Your task to perform on an android device: Open Google Maps and go to "Timeline" Image 0: 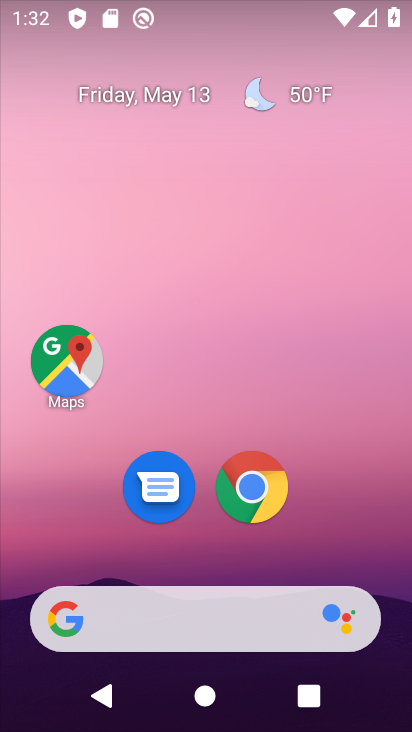
Step 0: click (81, 388)
Your task to perform on an android device: Open Google Maps and go to "Timeline" Image 1: 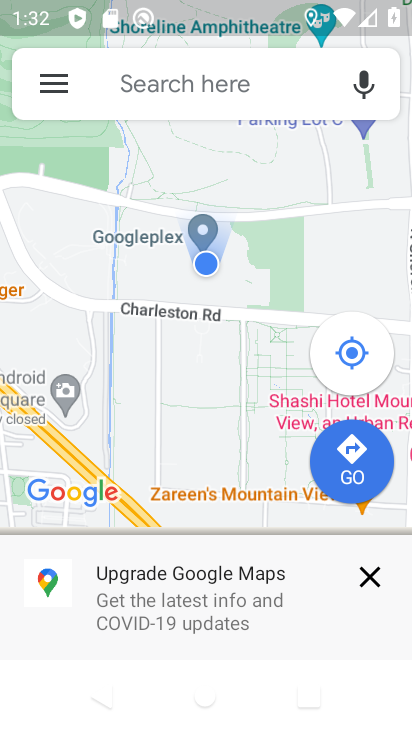
Step 1: click (51, 80)
Your task to perform on an android device: Open Google Maps and go to "Timeline" Image 2: 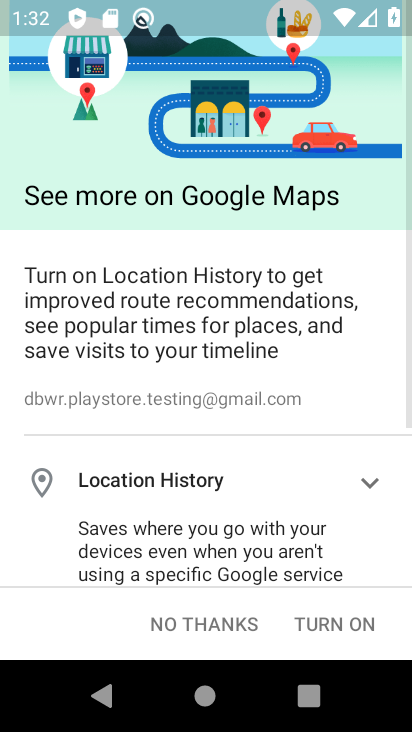
Step 2: click (226, 629)
Your task to perform on an android device: Open Google Maps and go to "Timeline" Image 3: 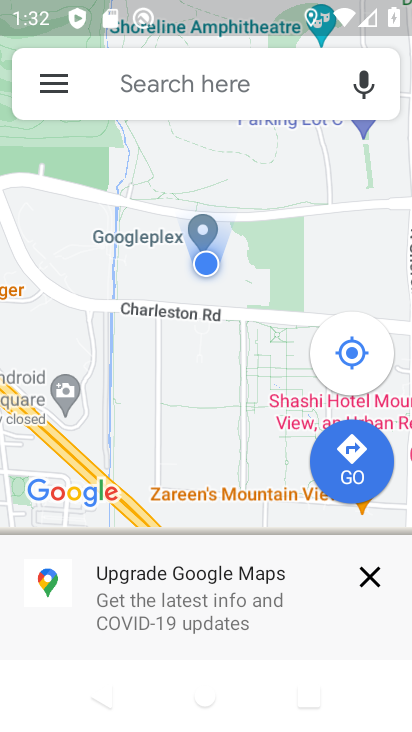
Step 3: click (54, 85)
Your task to perform on an android device: Open Google Maps and go to "Timeline" Image 4: 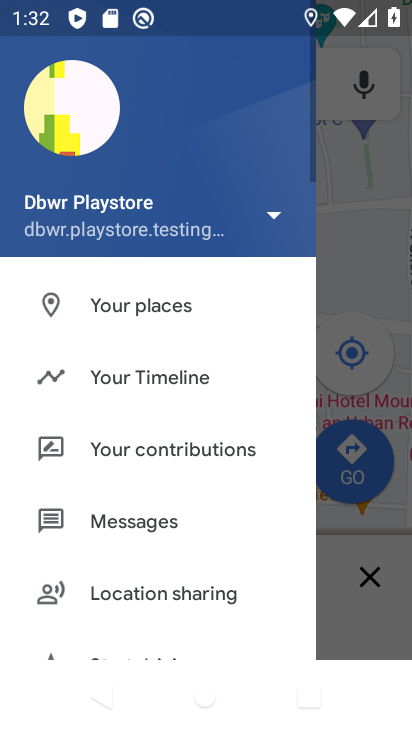
Step 4: click (142, 367)
Your task to perform on an android device: Open Google Maps and go to "Timeline" Image 5: 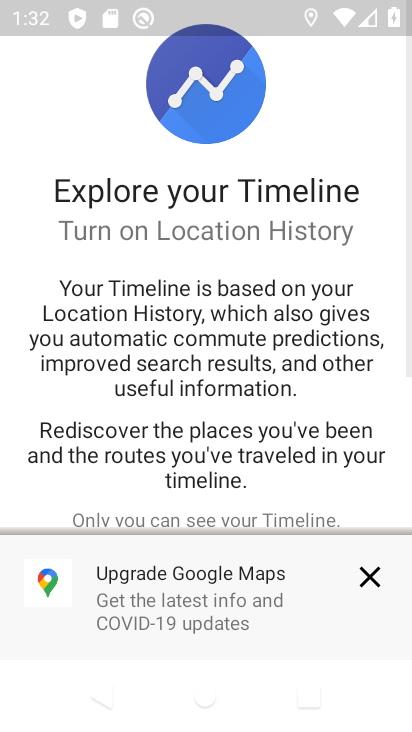
Step 5: click (381, 588)
Your task to perform on an android device: Open Google Maps and go to "Timeline" Image 6: 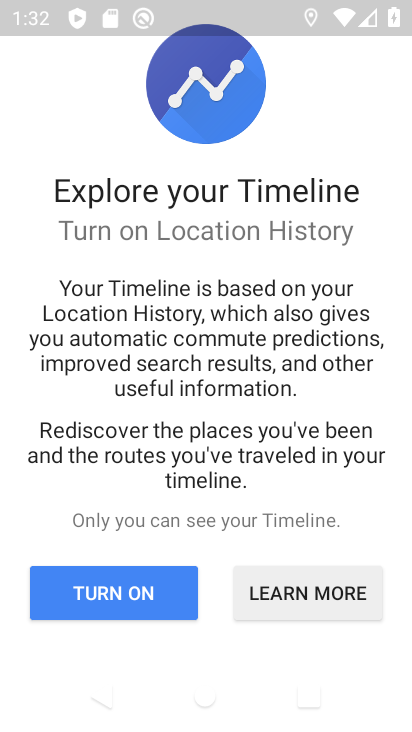
Step 6: click (128, 584)
Your task to perform on an android device: Open Google Maps and go to "Timeline" Image 7: 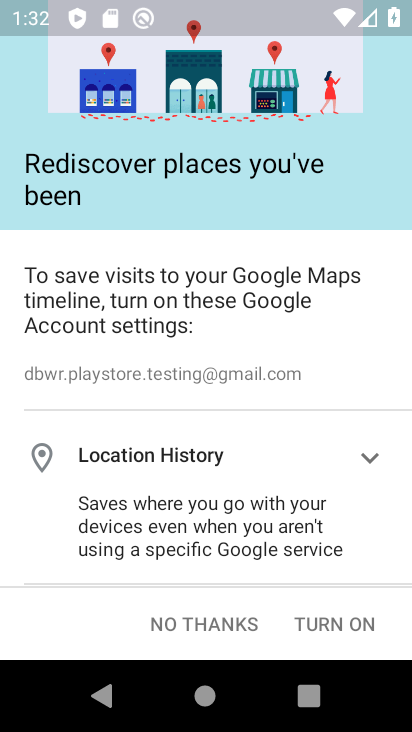
Step 7: click (354, 635)
Your task to perform on an android device: Open Google Maps and go to "Timeline" Image 8: 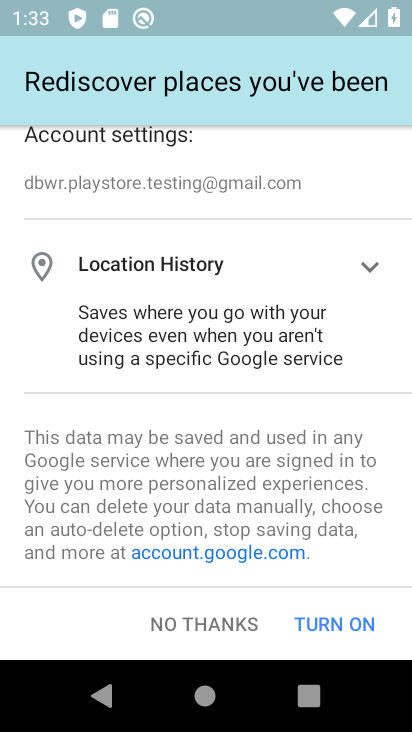
Step 8: click (354, 635)
Your task to perform on an android device: Open Google Maps and go to "Timeline" Image 9: 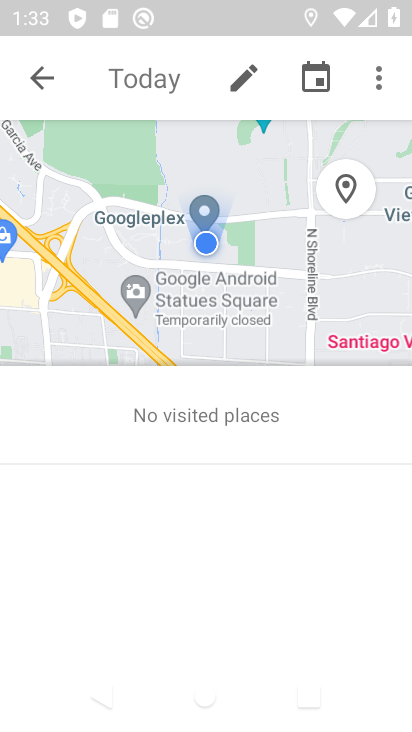
Step 9: task complete